Your task to perform on an android device: allow cookies in the chrome app Image 0: 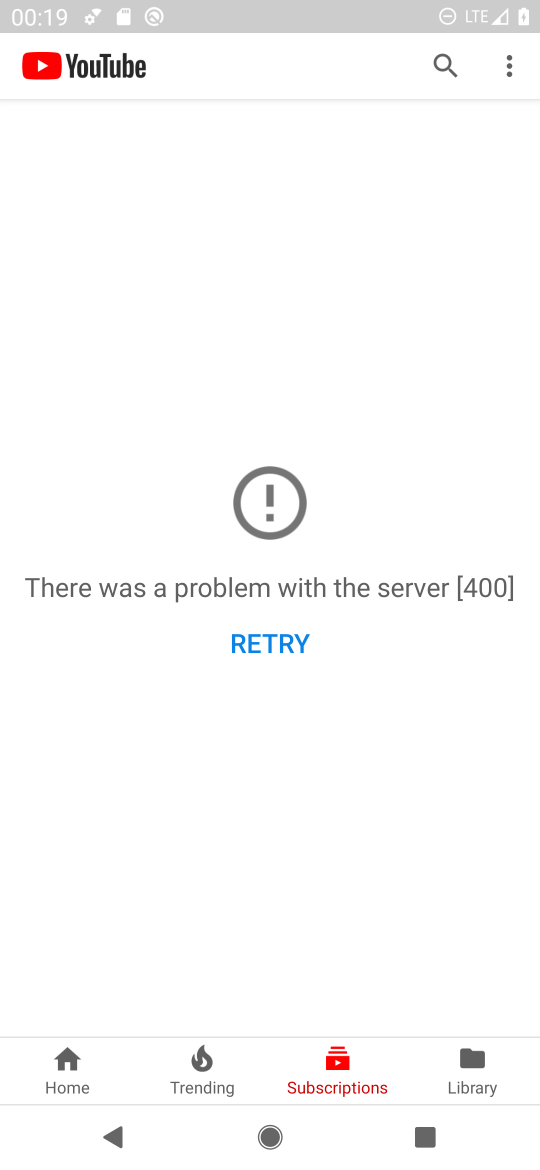
Step 0: press home button
Your task to perform on an android device: allow cookies in the chrome app Image 1: 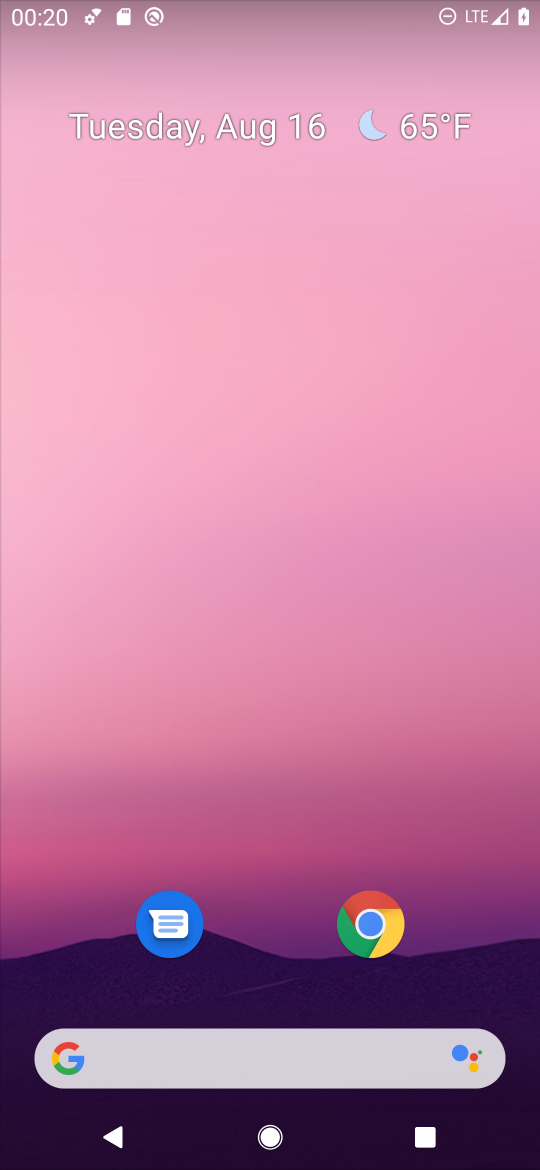
Step 1: click (365, 928)
Your task to perform on an android device: allow cookies in the chrome app Image 2: 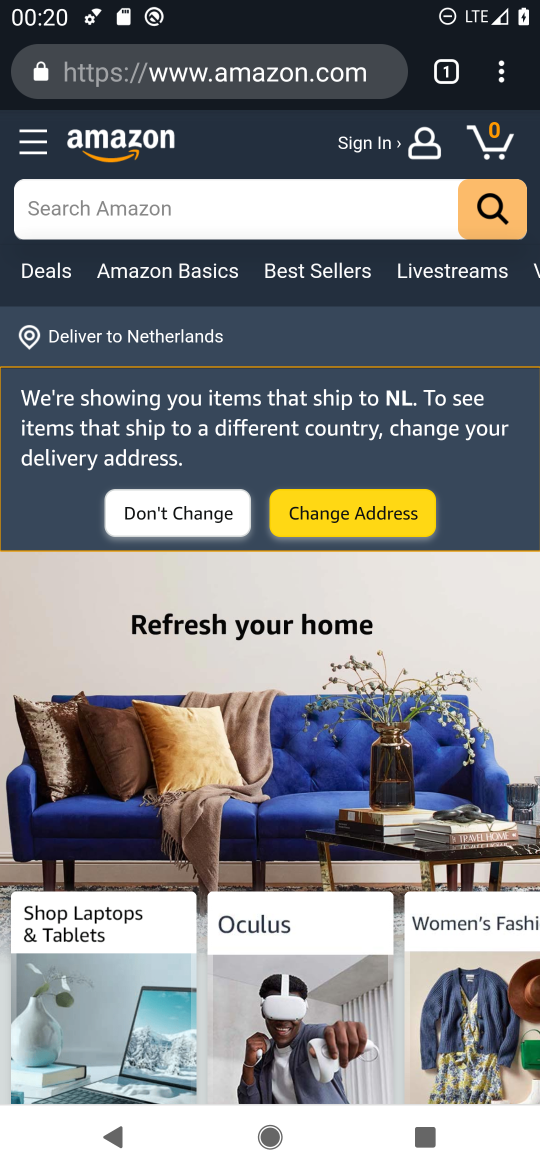
Step 2: click (510, 71)
Your task to perform on an android device: allow cookies in the chrome app Image 3: 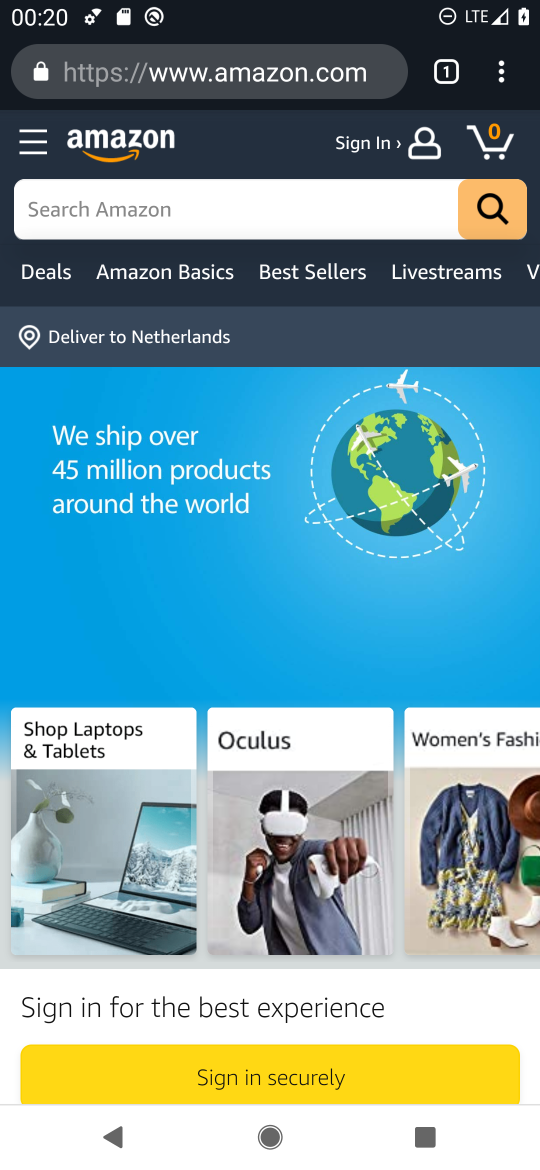
Step 3: click (503, 79)
Your task to perform on an android device: allow cookies in the chrome app Image 4: 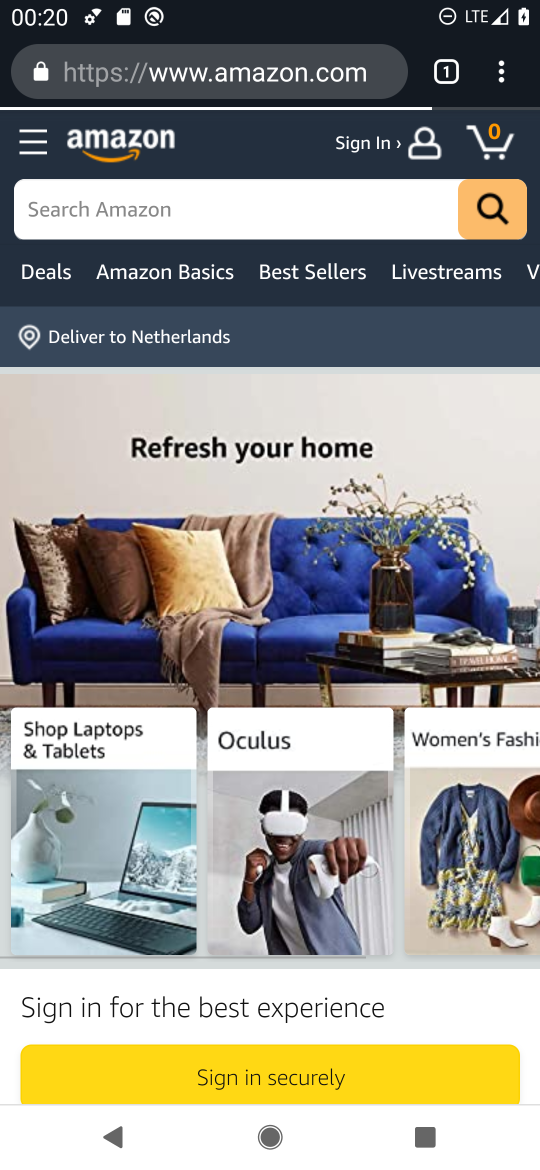
Step 4: click (509, 75)
Your task to perform on an android device: allow cookies in the chrome app Image 5: 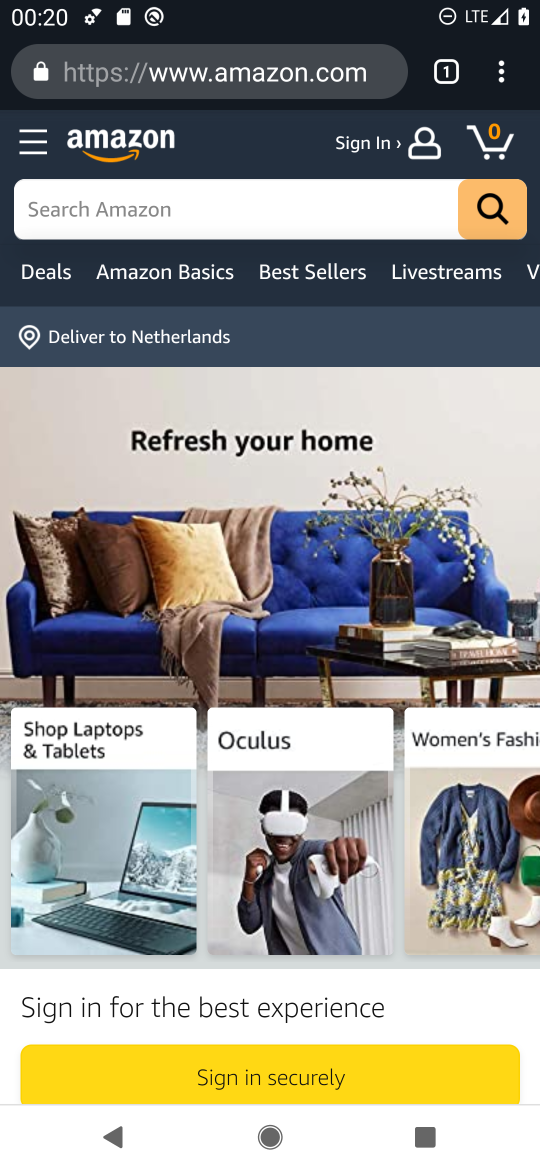
Step 5: click (501, 67)
Your task to perform on an android device: allow cookies in the chrome app Image 6: 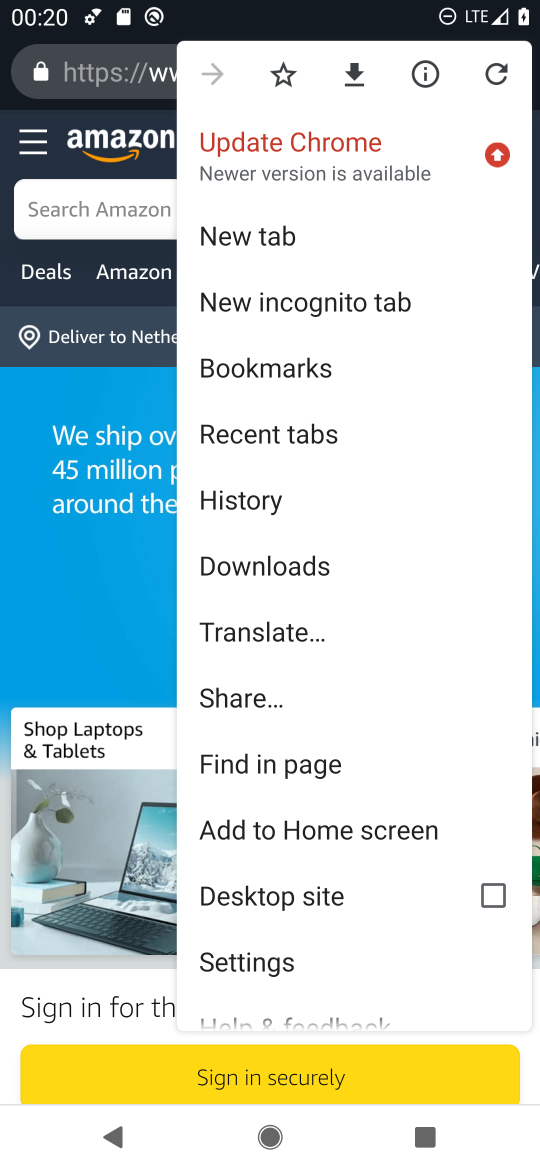
Step 6: click (255, 980)
Your task to perform on an android device: allow cookies in the chrome app Image 7: 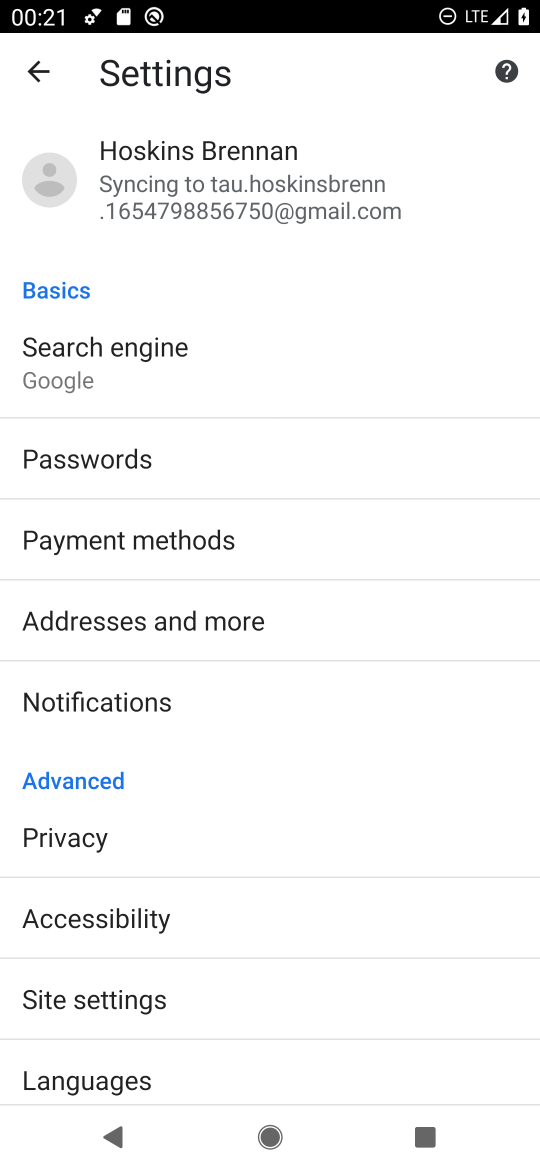
Step 7: click (226, 988)
Your task to perform on an android device: allow cookies in the chrome app Image 8: 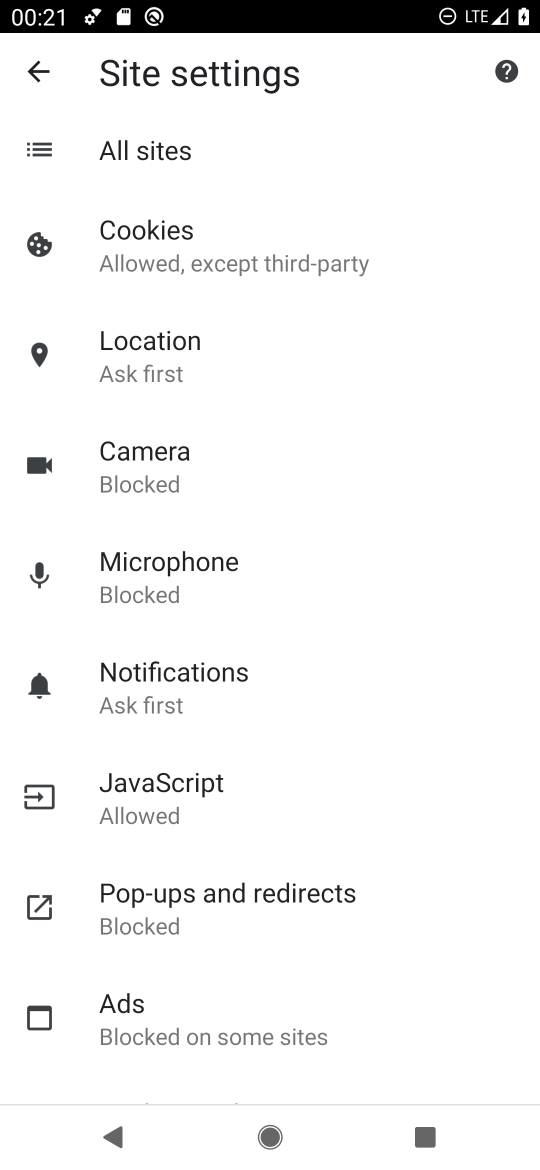
Step 8: click (201, 264)
Your task to perform on an android device: allow cookies in the chrome app Image 9: 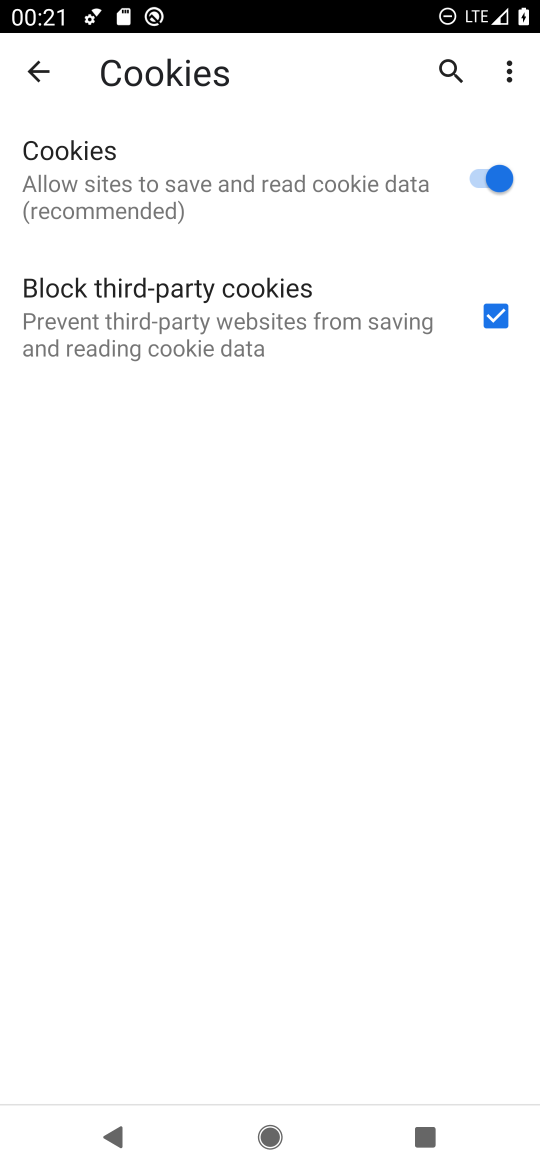
Step 9: click (499, 316)
Your task to perform on an android device: allow cookies in the chrome app Image 10: 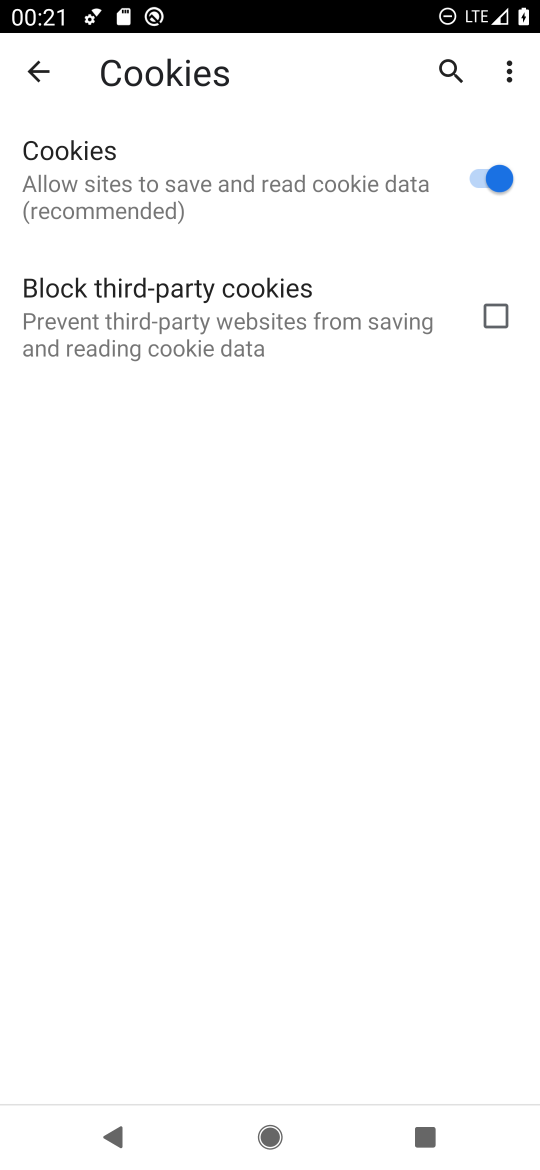
Step 10: task complete